Your task to perform on an android device: Go to sound settings Image 0: 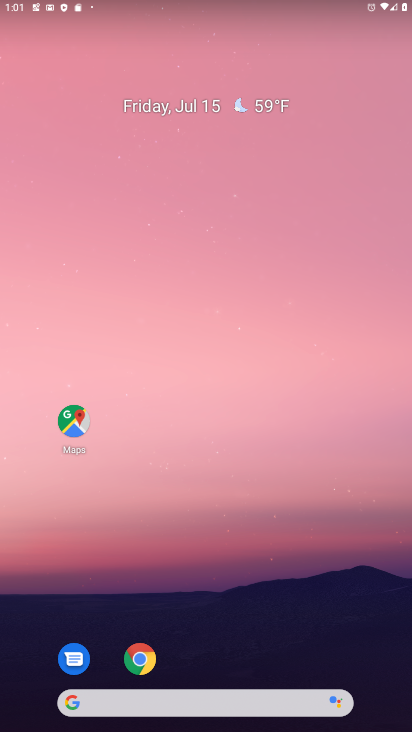
Step 0: drag from (269, 726) to (303, 159)
Your task to perform on an android device: Go to sound settings Image 1: 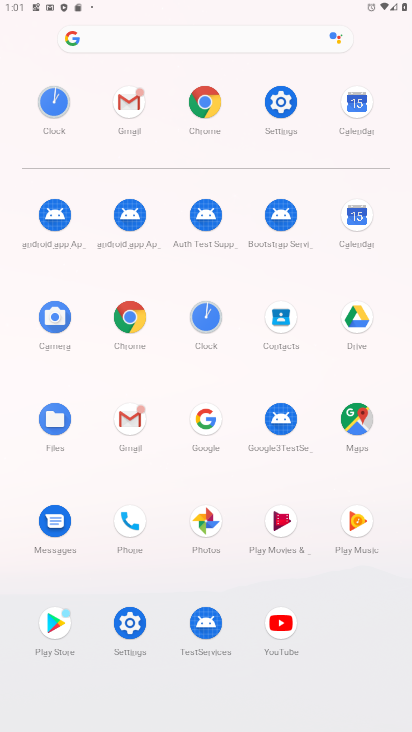
Step 1: click (128, 624)
Your task to perform on an android device: Go to sound settings Image 2: 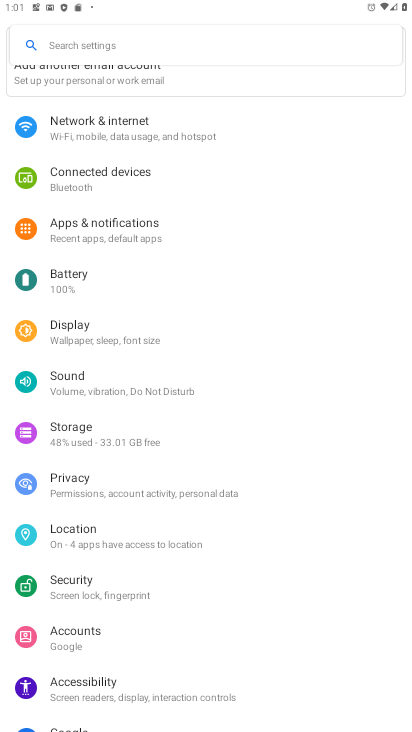
Step 2: click (69, 383)
Your task to perform on an android device: Go to sound settings Image 3: 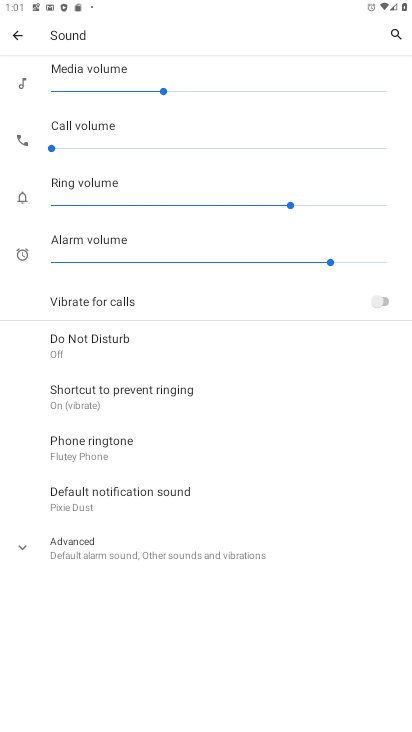
Step 3: task complete